Your task to perform on an android device: check data usage Image 0: 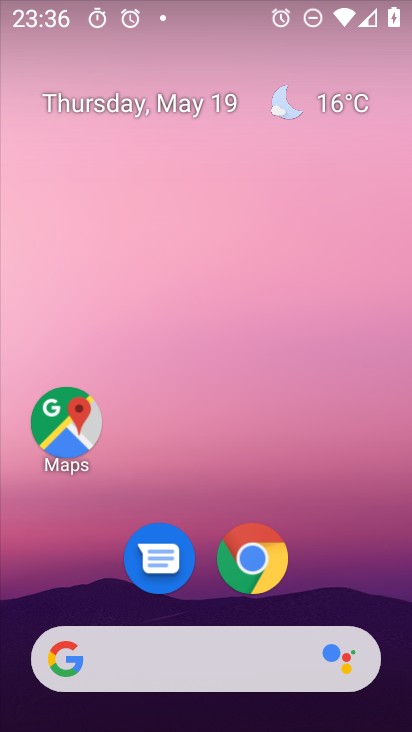
Step 0: drag from (186, 725) to (175, 53)
Your task to perform on an android device: check data usage Image 1: 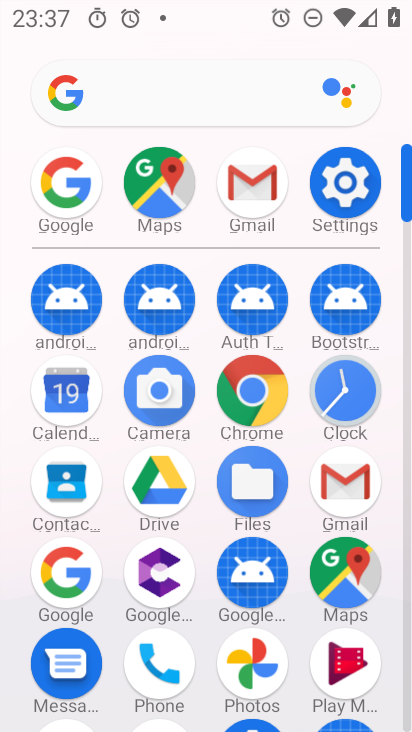
Step 1: click (341, 186)
Your task to perform on an android device: check data usage Image 2: 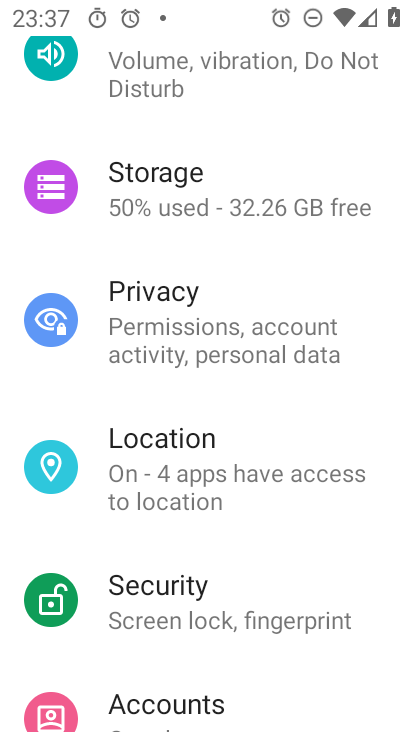
Step 2: drag from (205, 153) to (214, 527)
Your task to perform on an android device: check data usage Image 3: 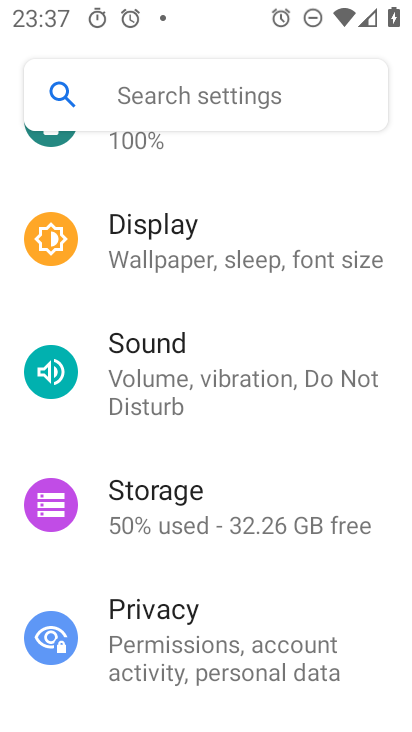
Step 3: drag from (262, 183) to (272, 635)
Your task to perform on an android device: check data usage Image 4: 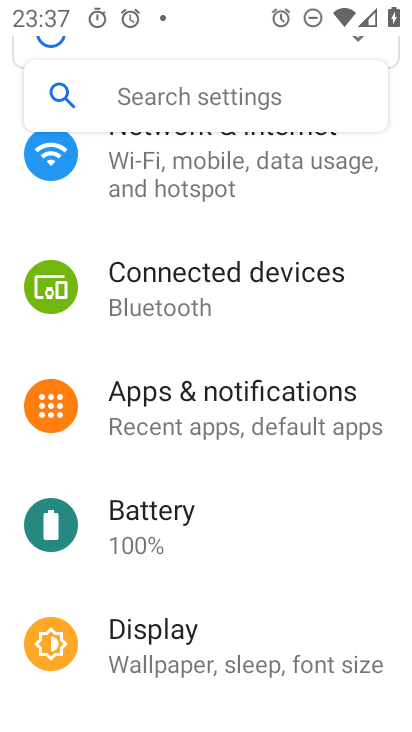
Step 4: drag from (189, 214) to (210, 671)
Your task to perform on an android device: check data usage Image 5: 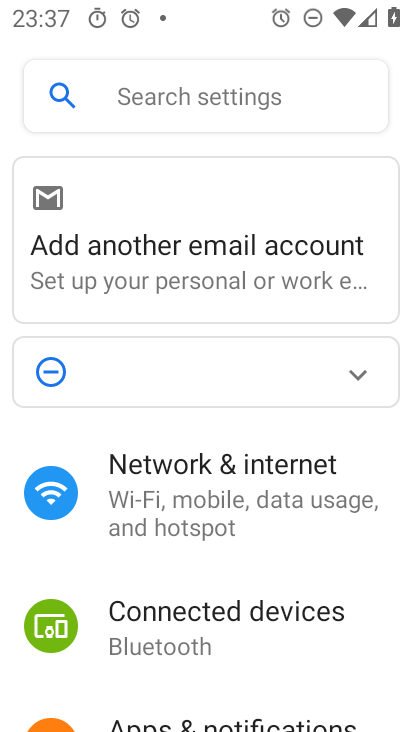
Step 5: click (177, 490)
Your task to perform on an android device: check data usage Image 6: 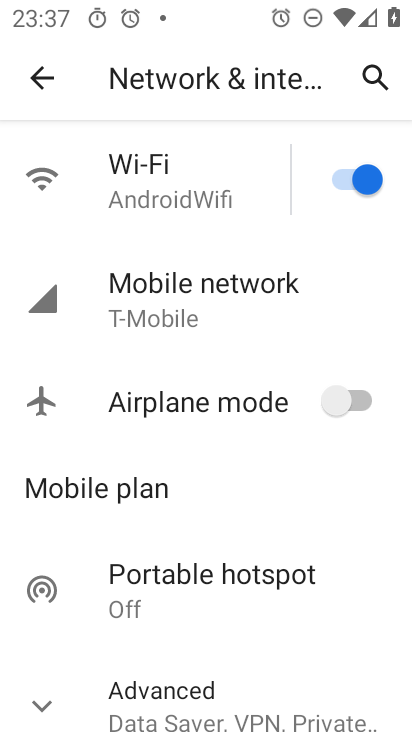
Step 6: click (155, 292)
Your task to perform on an android device: check data usage Image 7: 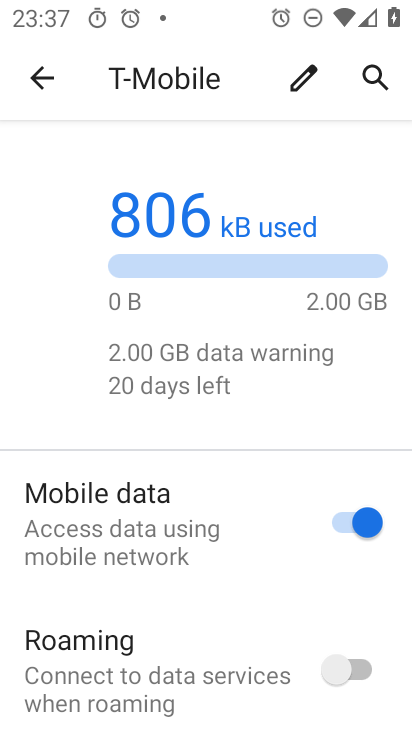
Step 7: drag from (191, 688) to (194, 342)
Your task to perform on an android device: check data usage Image 8: 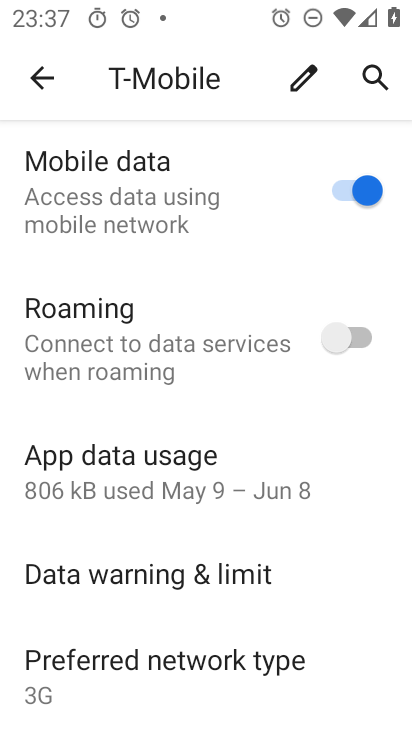
Step 8: click (132, 471)
Your task to perform on an android device: check data usage Image 9: 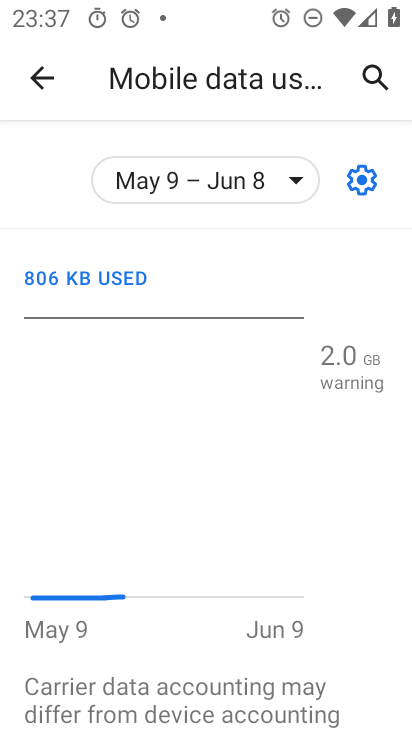
Step 9: task complete